Your task to perform on an android device: Turn off the flashlight Image 0: 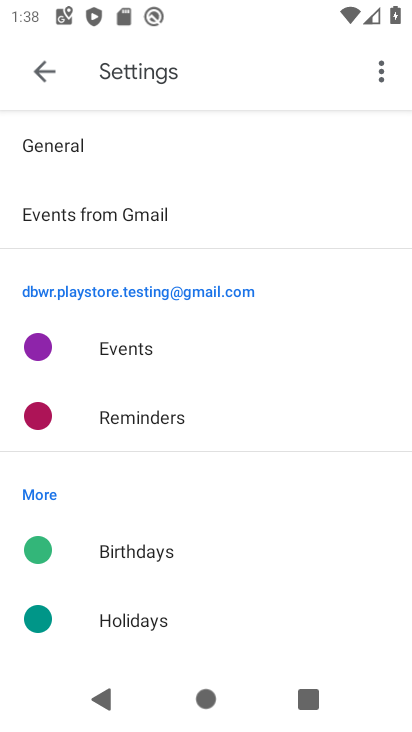
Step 0: press back button
Your task to perform on an android device: Turn off the flashlight Image 1: 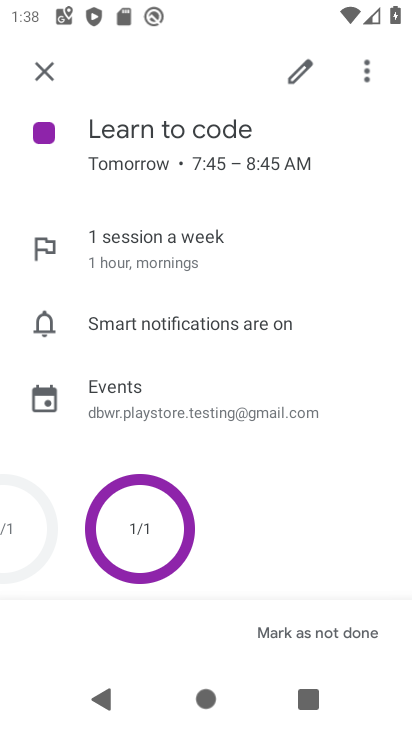
Step 1: task complete